Your task to perform on an android device: Search for a new lawnmower on Lowes.com Image 0: 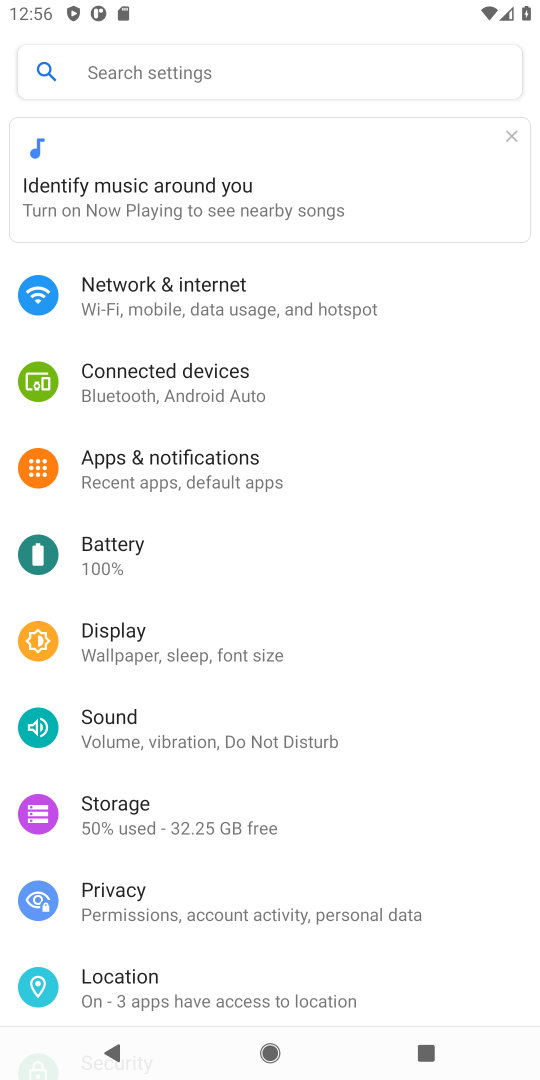
Step 0: press home button
Your task to perform on an android device: Search for a new lawnmower on Lowes.com Image 1: 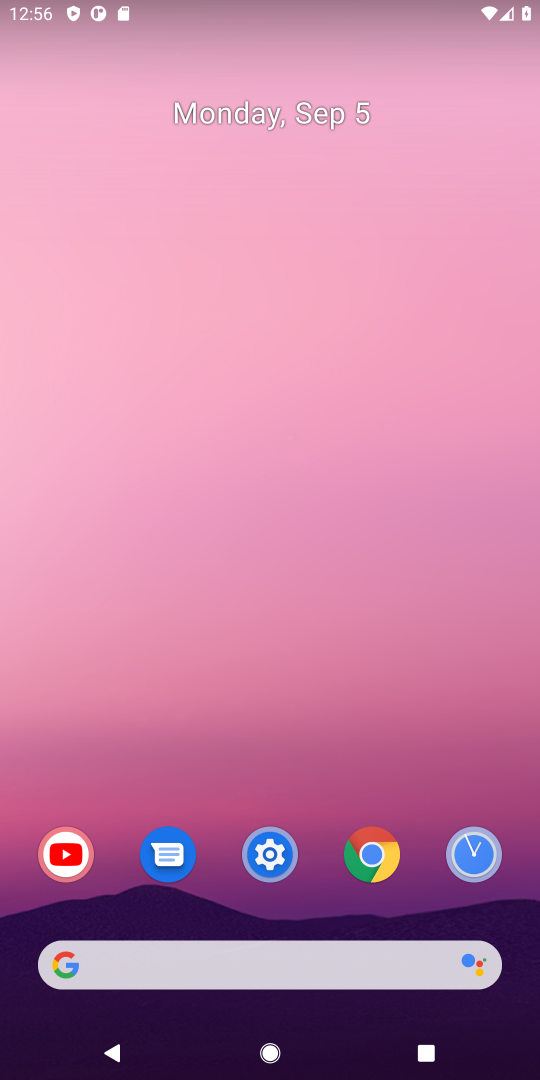
Step 1: click (192, 959)
Your task to perform on an android device: Search for a new lawnmower on Lowes.com Image 2: 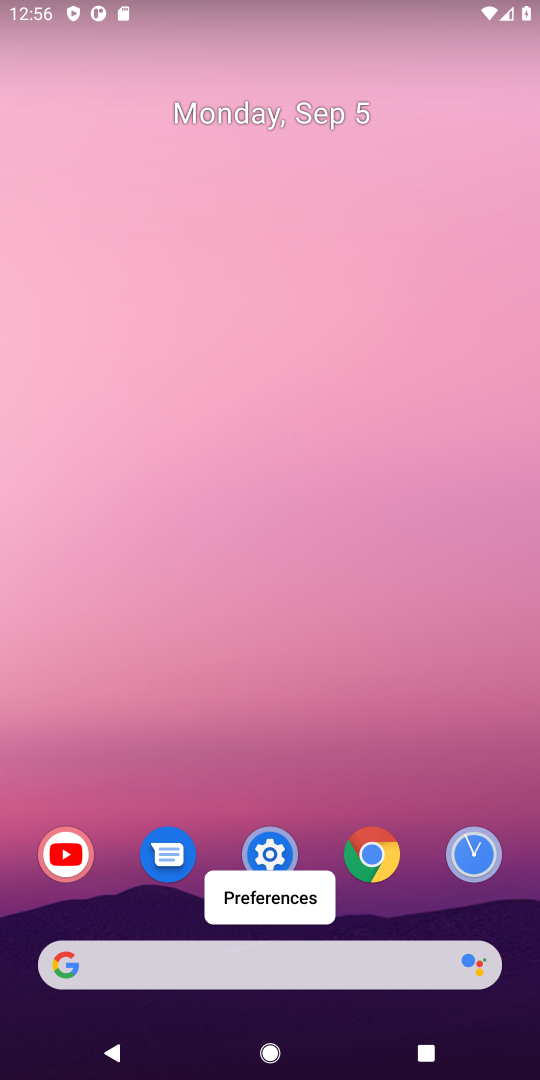
Step 2: click (337, 966)
Your task to perform on an android device: Search for a new lawnmower on Lowes.com Image 3: 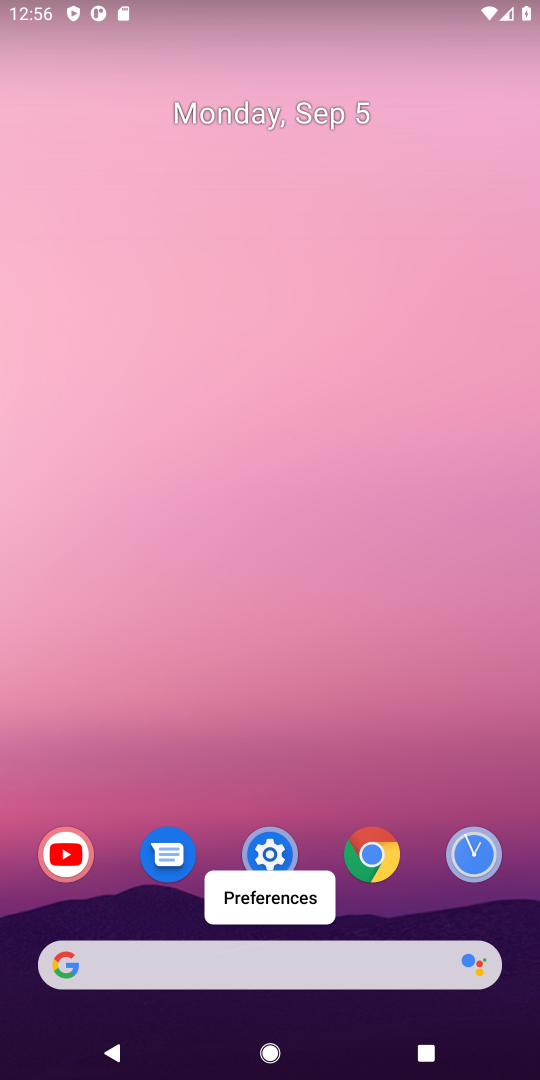
Step 3: click (362, 971)
Your task to perform on an android device: Search for a new lawnmower on Lowes.com Image 4: 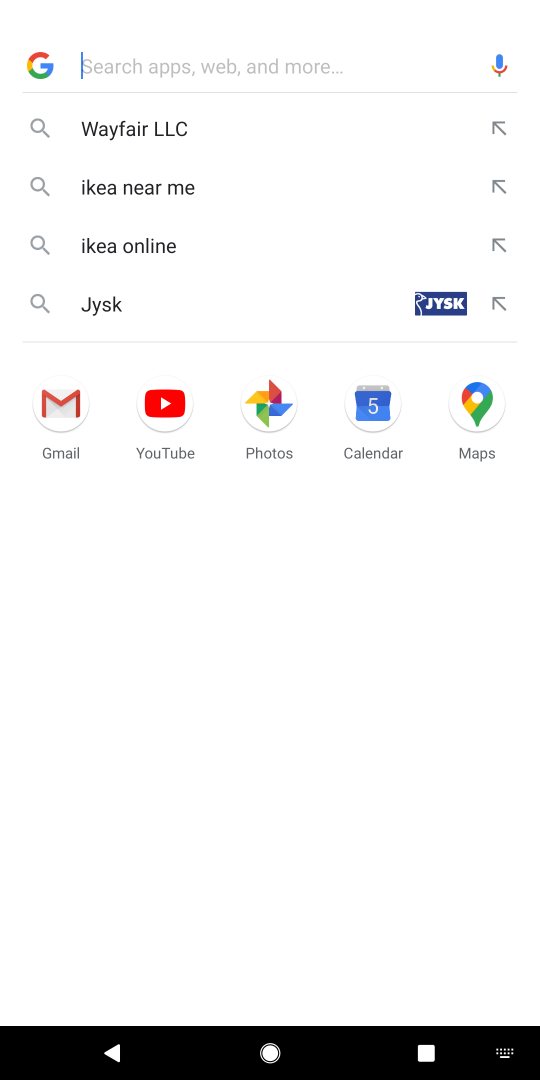
Step 4: type "Lowes.com"
Your task to perform on an android device: Search for a new lawnmower on Lowes.com Image 5: 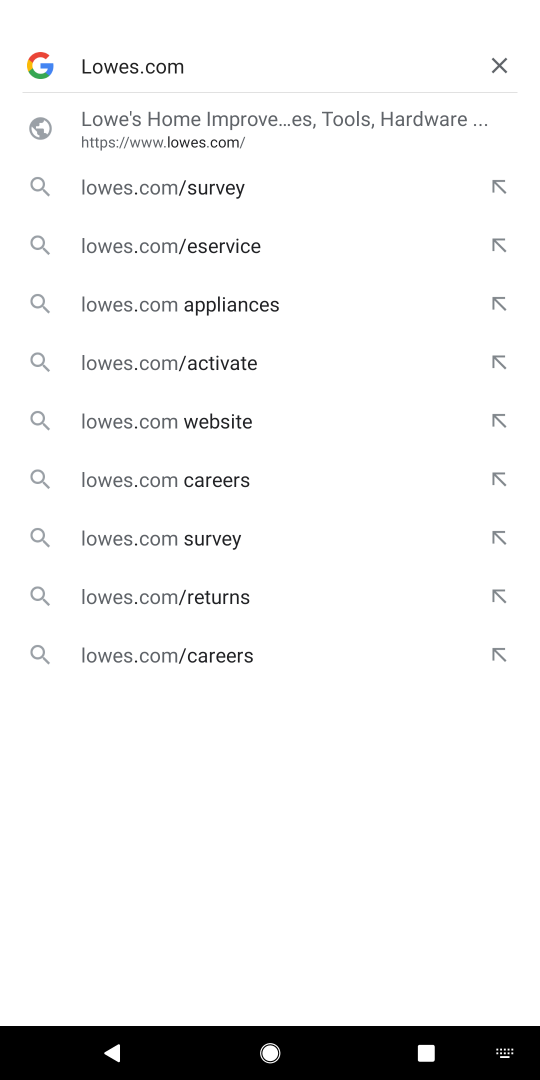
Step 5: click (255, 121)
Your task to perform on an android device: Search for a new lawnmower on Lowes.com Image 6: 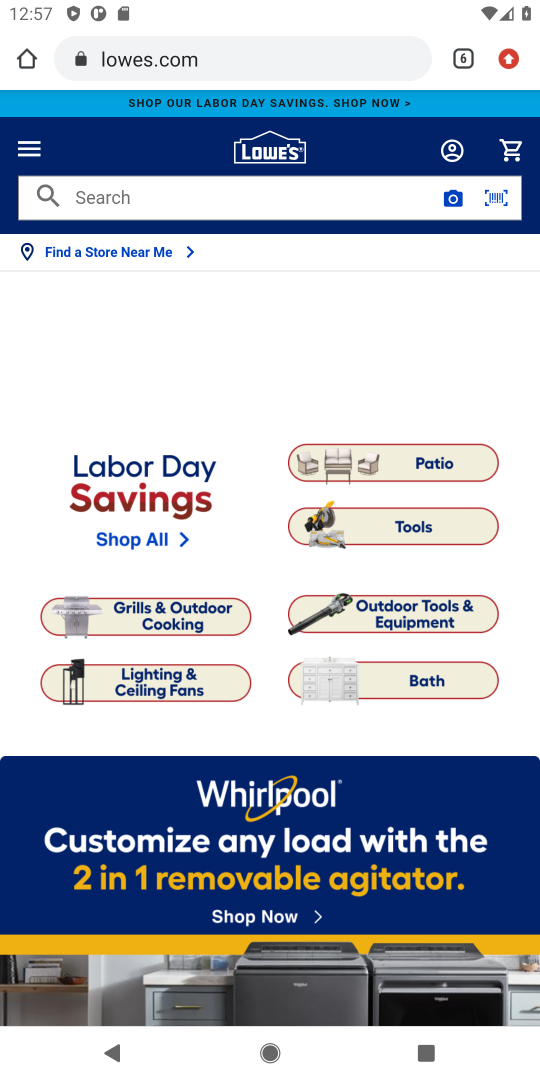
Step 6: click (304, 206)
Your task to perform on an android device: Search for a new lawnmower on Lowes.com Image 7: 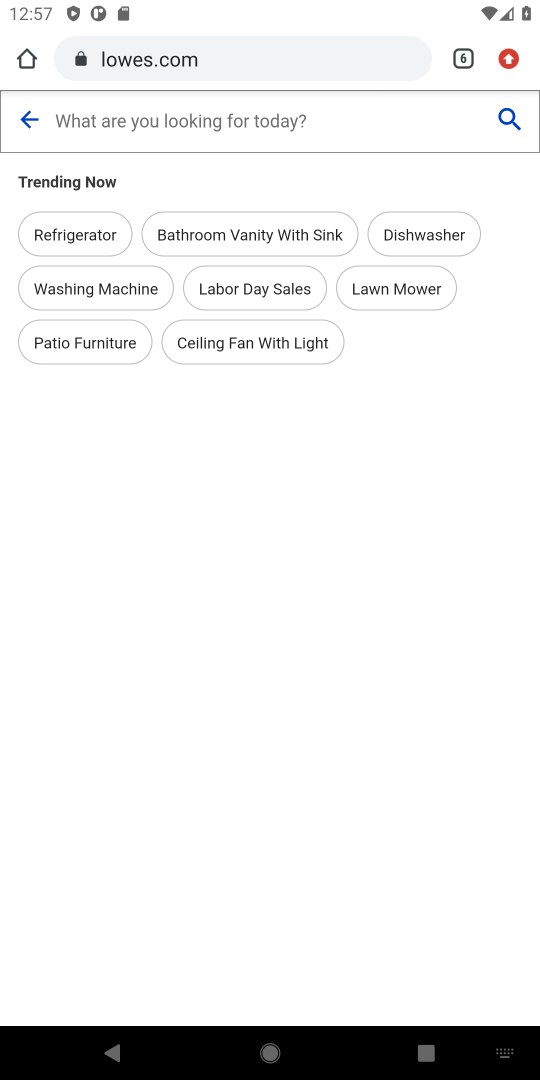
Step 7: type "lawnmower"
Your task to perform on an android device: Search for a new lawnmower on Lowes.com Image 8: 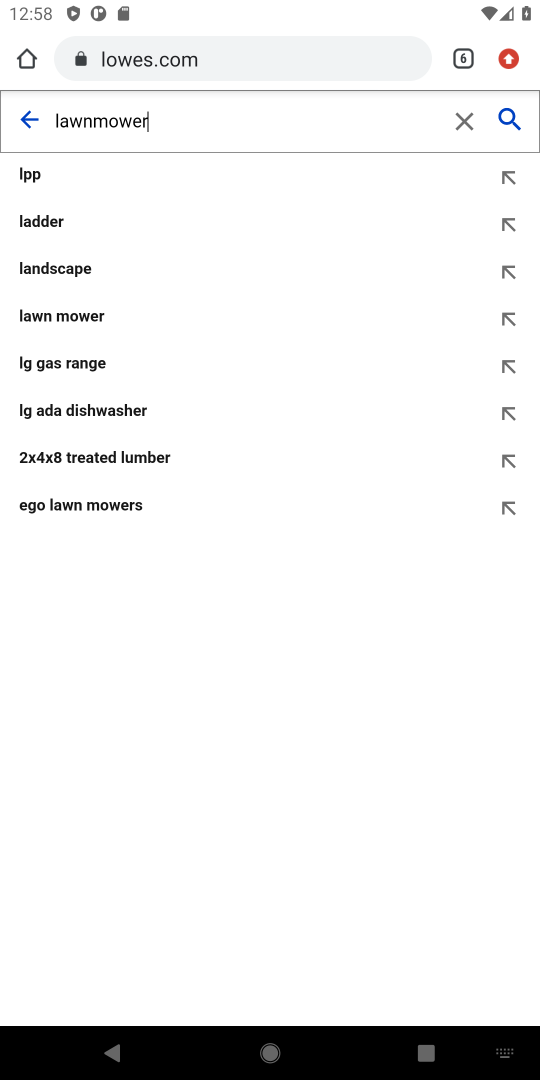
Step 8: type ""
Your task to perform on an android device: Search for a new lawnmower on Lowes.com Image 9: 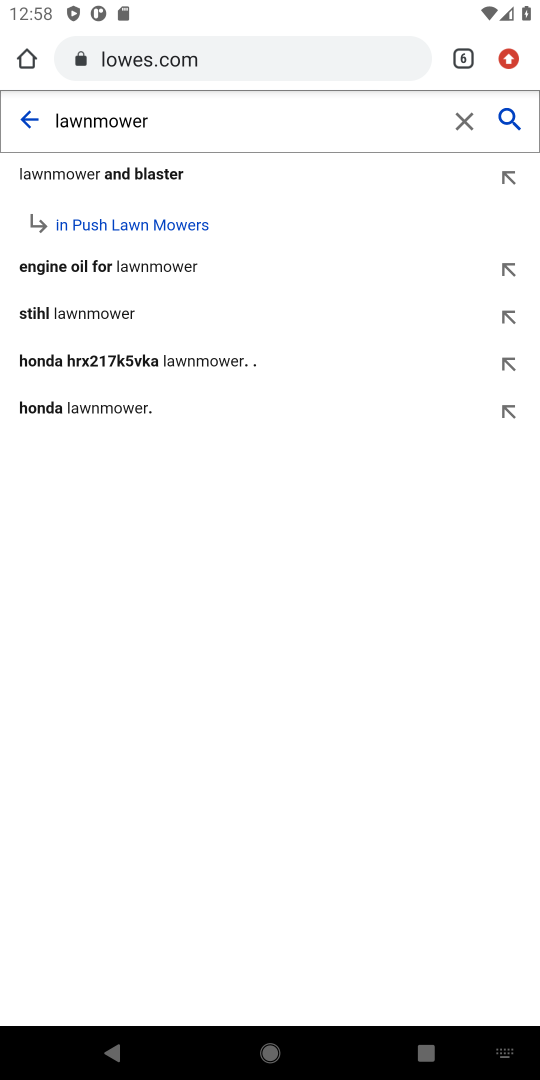
Step 9: click (519, 115)
Your task to perform on an android device: Search for a new lawnmower on Lowes.com Image 10: 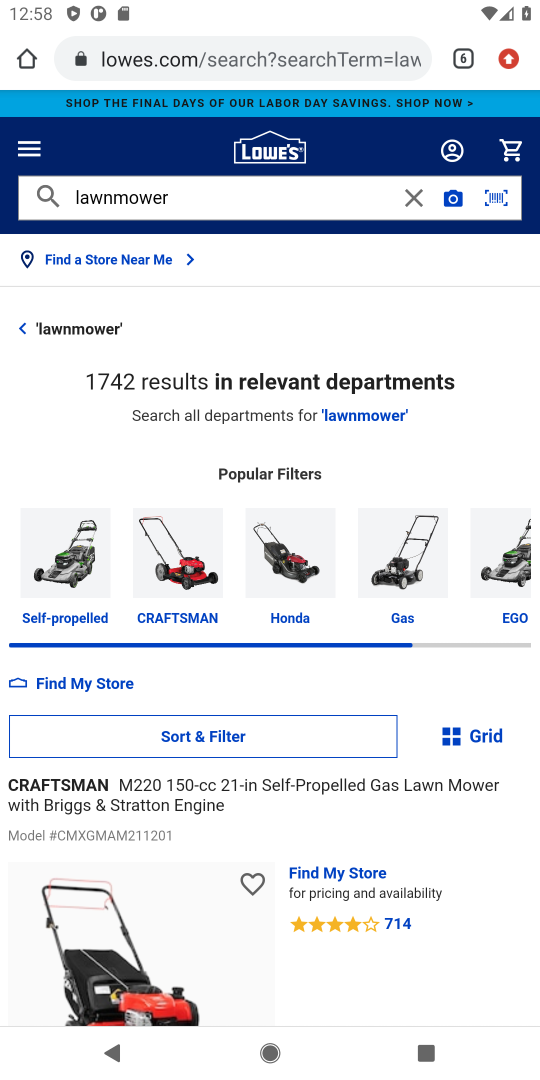
Step 10: task complete